Your task to perform on an android device: Go to privacy settings Image 0: 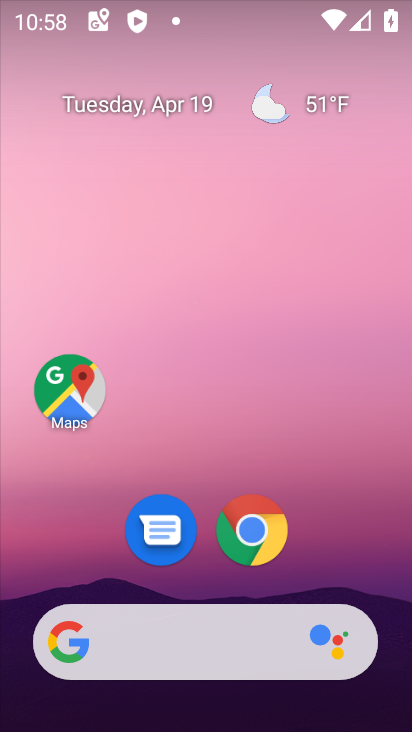
Step 0: click (253, 526)
Your task to perform on an android device: Go to privacy settings Image 1: 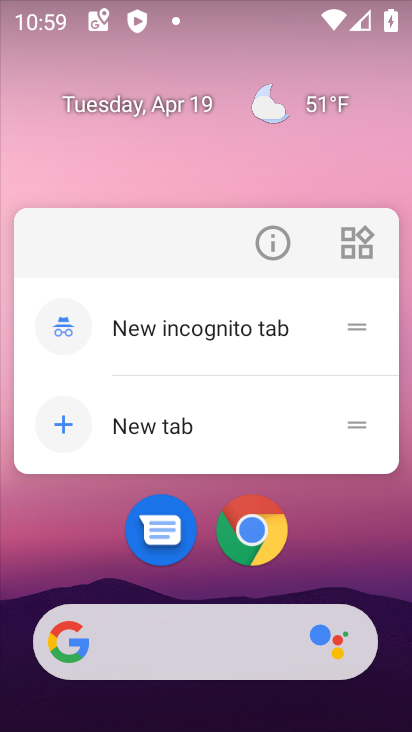
Step 1: click (255, 523)
Your task to perform on an android device: Go to privacy settings Image 2: 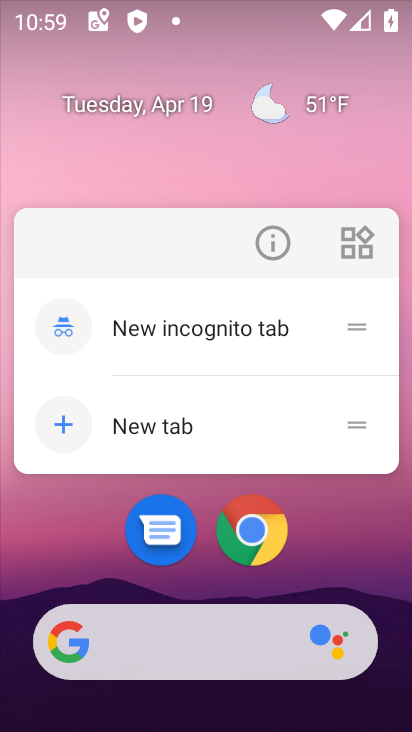
Step 2: click (256, 521)
Your task to perform on an android device: Go to privacy settings Image 3: 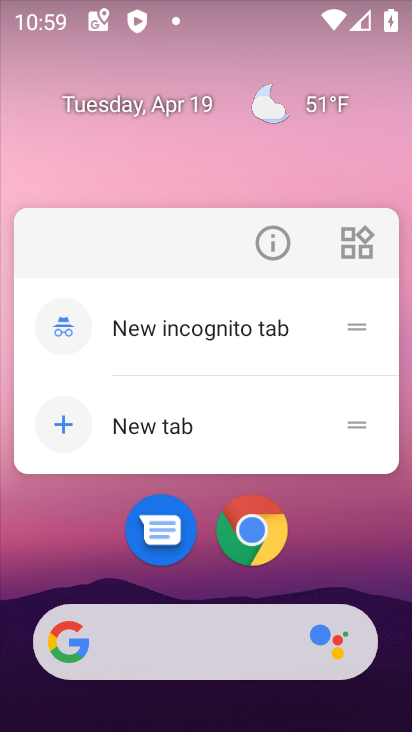
Step 3: click (256, 525)
Your task to perform on an android device: Go to privacy settings Image 4: 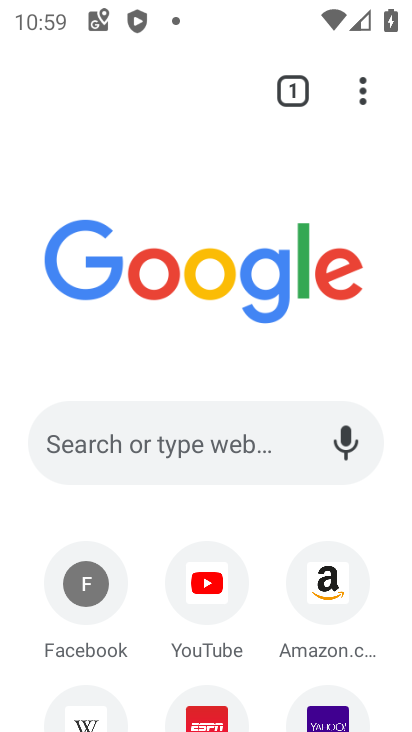
Step 4: click (360, 85)
Your task to perform on an android device: Go to privacy settings Image 5: 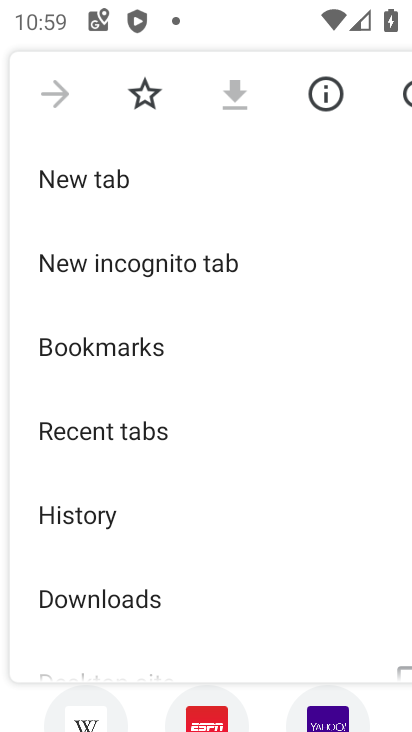
Step 5: drag from (241, 400) to (264, 218)
Your task to perform on an android device: Go to privacy settings Image 6: 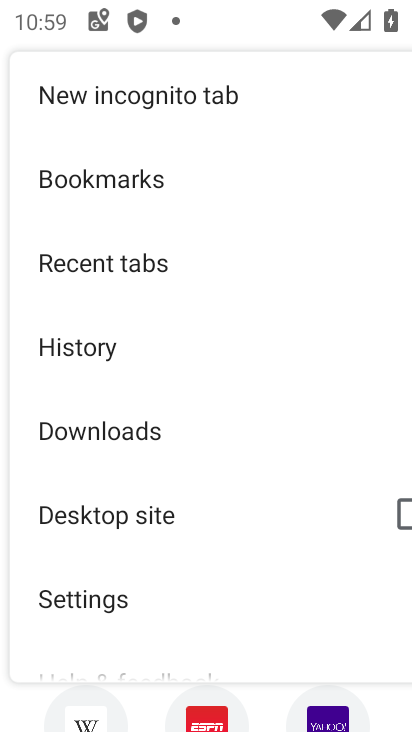
Step 6: drag from (190, 518) to (224, 221)
Your task to perform on an android device: Go to privacy settings Image 7: 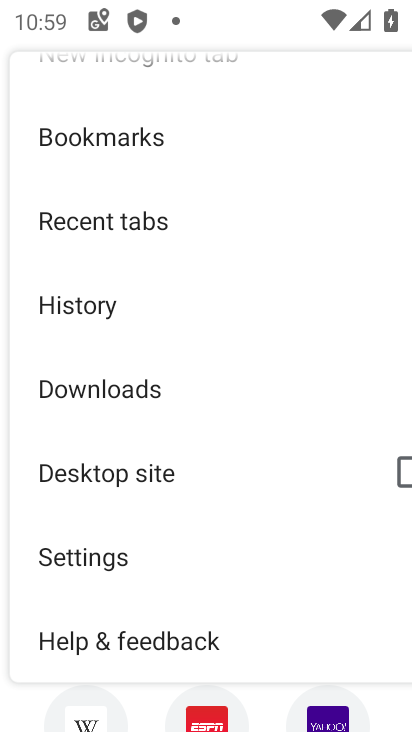
Step 7: click (120, 554)
Your task to perform on an android device: Go to privacy settings Image 8: 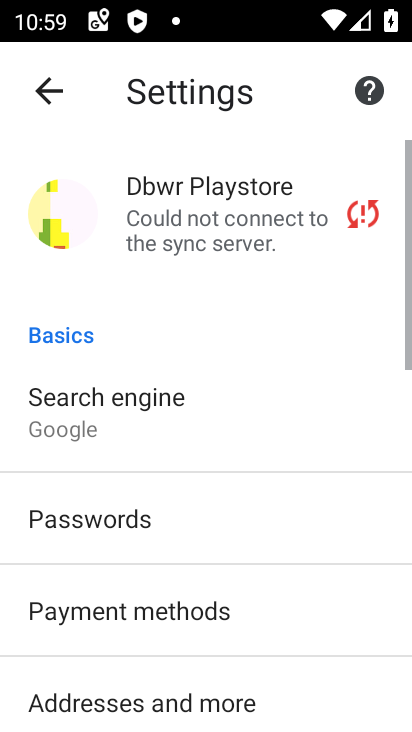
Step 8: drag from (207, 546) to (277, 163)
Your task to perform on an android device: Go to privacy settings Image 9: 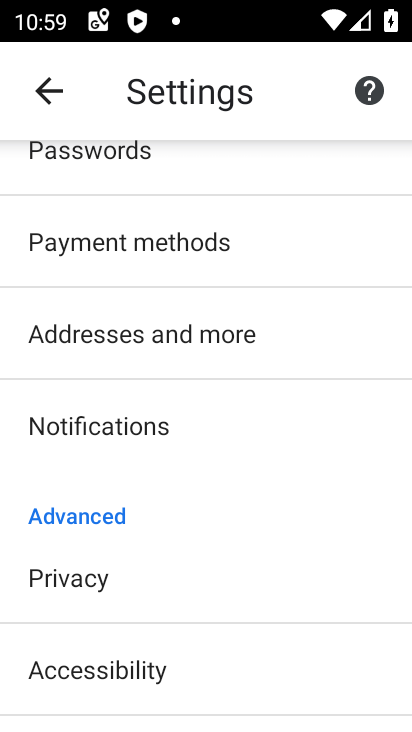
Step 9: click (132, 590)
Your task to perform on an android device: Go to privacy settings Image 10: 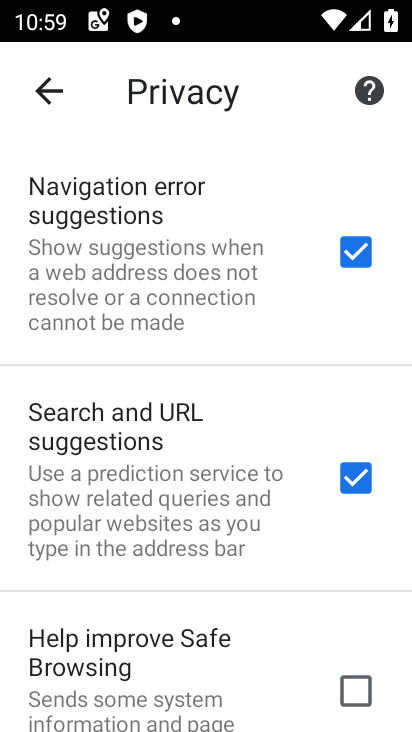
Step 10: task complete